Your task to perform on an android device: Search for Mexican restaurants on Maps Image 0: 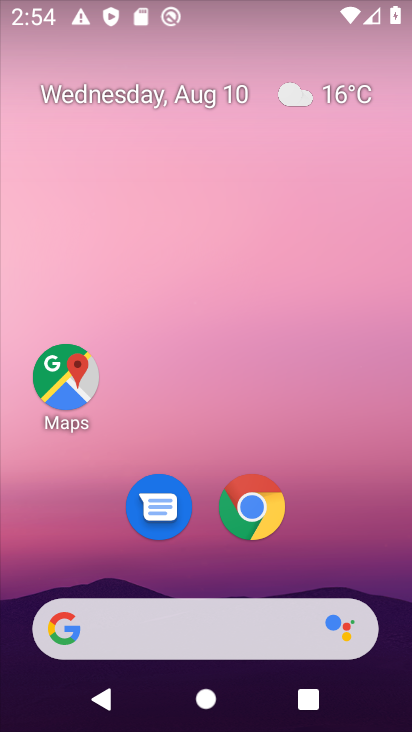
Step 0: drag from (389, 527) to (206, 20)
Your task to perform on an android device: Search for Mexican restaurants on Maps Image 1: 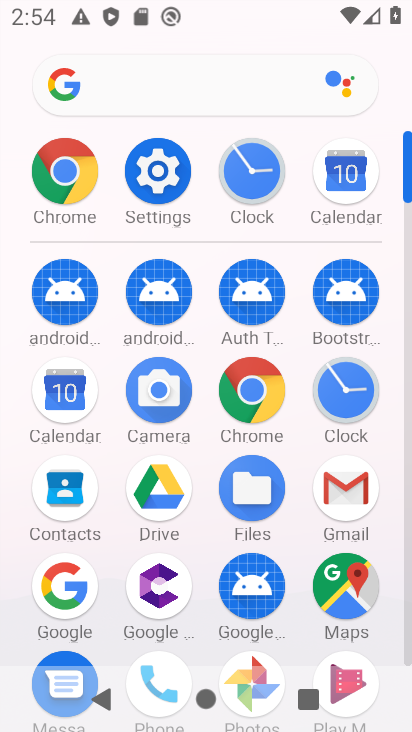
Step 1: click (352, 597)
Your task to perform on an android device: Search for Mexican restaurants on Maps Image 2: 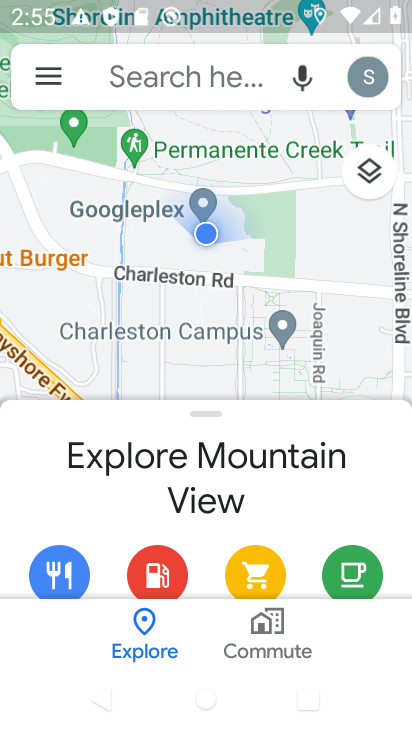
Step 2: click (208, 86)
Your task to perform on an android device: Search for Mexican restaurants on Maps Image 3: 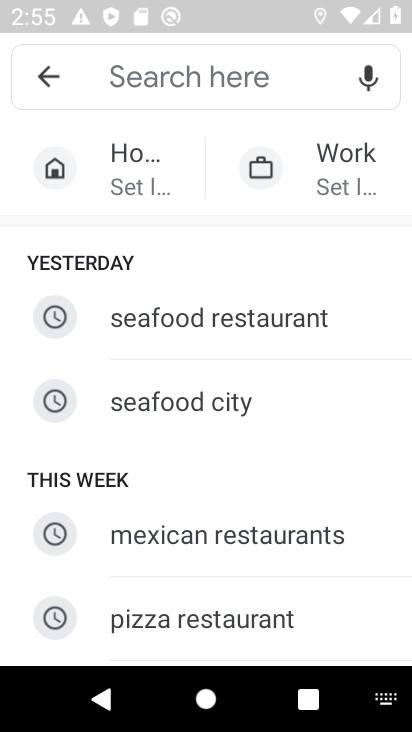
Step 3: click (240, 539)
Your task to perform on an android device: Search for Mexican restaurants on Maps Image 4: 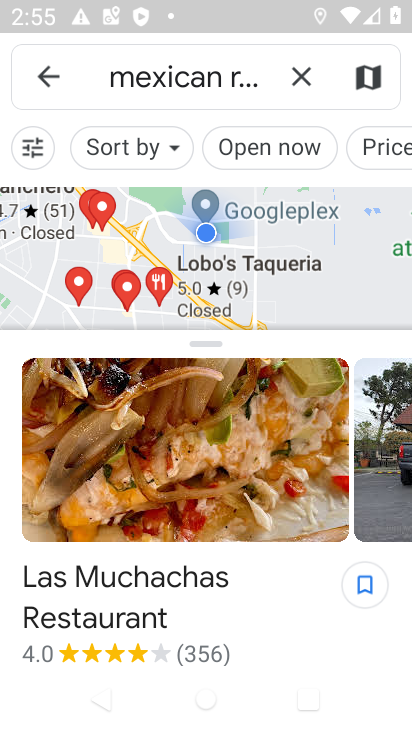
Step 4: task complete